Your task to perform on an android device: What's on my calendar tomorrow? Image 0: 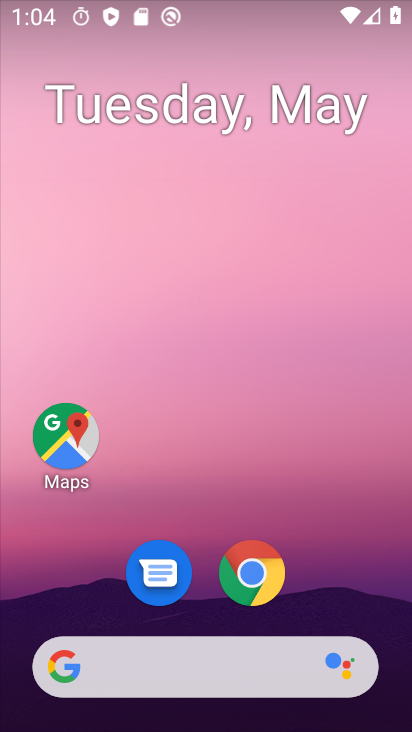
Step 0: drag from (316, 563) to (312, 118)
Your task to perform on an android device: What's on my calendar tomorrow? Image 1: 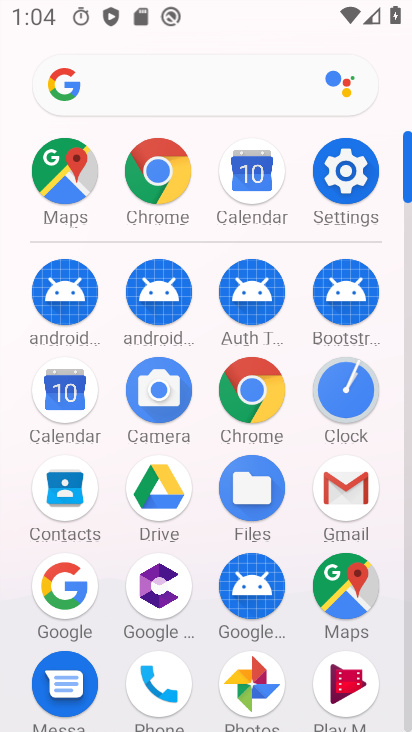
Step 1: click (65, 391)
Your task to perform on an android device: What's on my calendar tomorrow? Image 2: 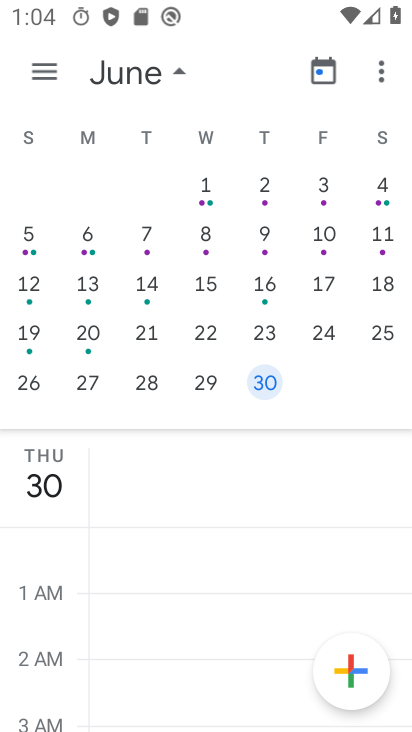
Step 2: task complete